Your task to perform on an android device: Go to calendar. Show me events next week Image 0: 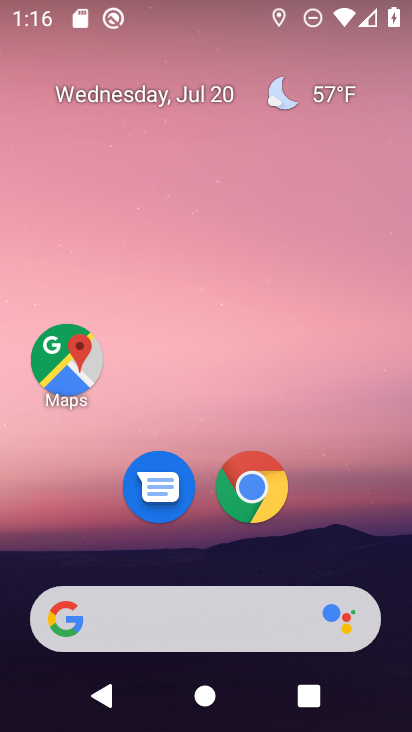
Step 0: press home button
Your task to perform on an android device: Go to calendar. Show me events next week Image 1: 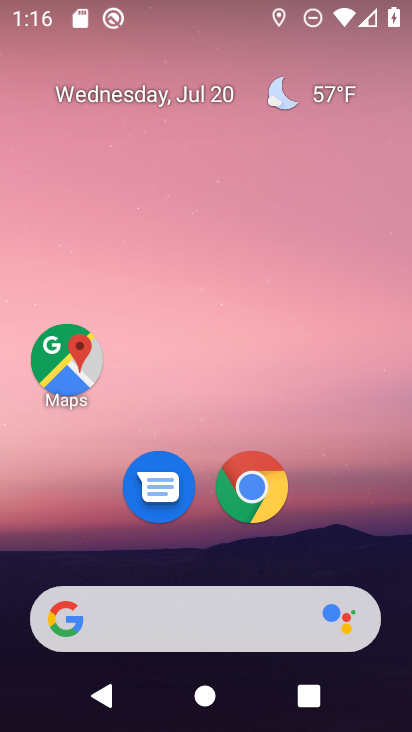
Step 1: drag from (352, 537) to (342, 184)
Your task to perform on an android device: Go to calendar. Show me events next week Image 2: 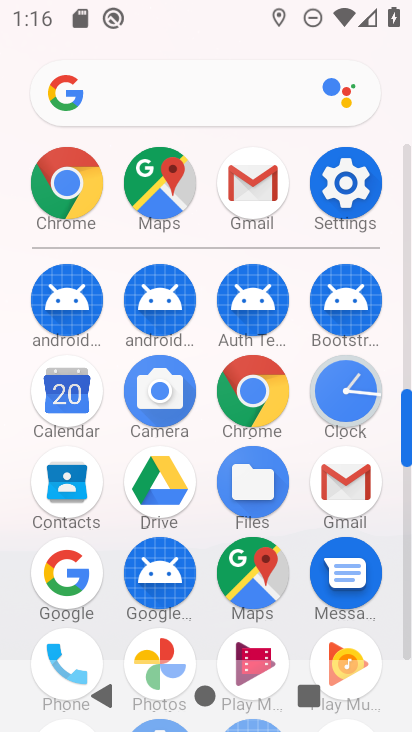
Step 2: click (71, 405)
Your task to perform on an android device: Go to calendar. Show me events next week Image 3: 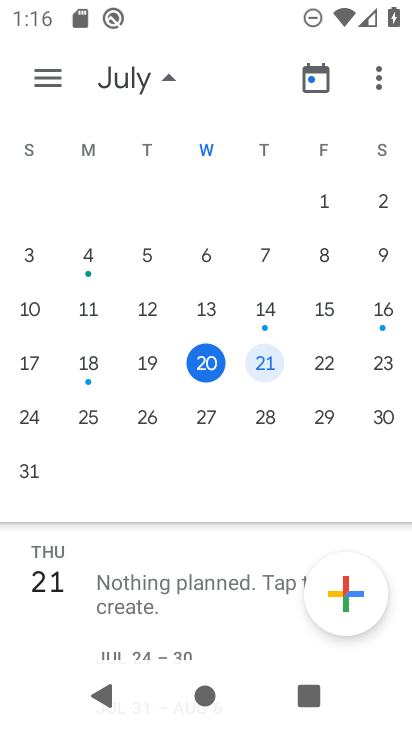
Step 3: click (88, 402)
Your task to perform on an android device: Go to calendar. Show me events next week Image 4: 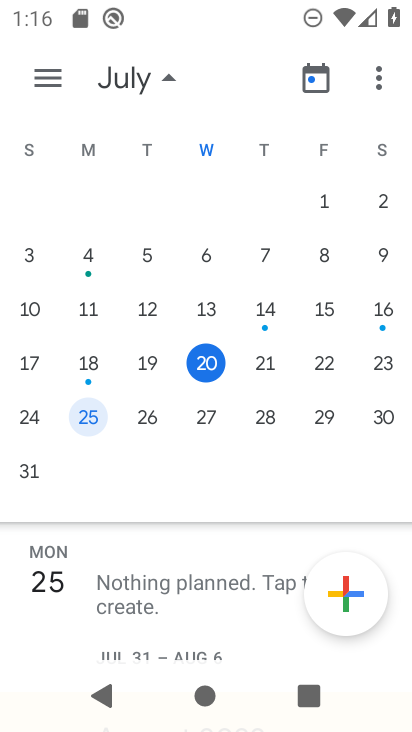
Step 4: task complete